Your task to perform on an android device: Go to notification settings Image 0: 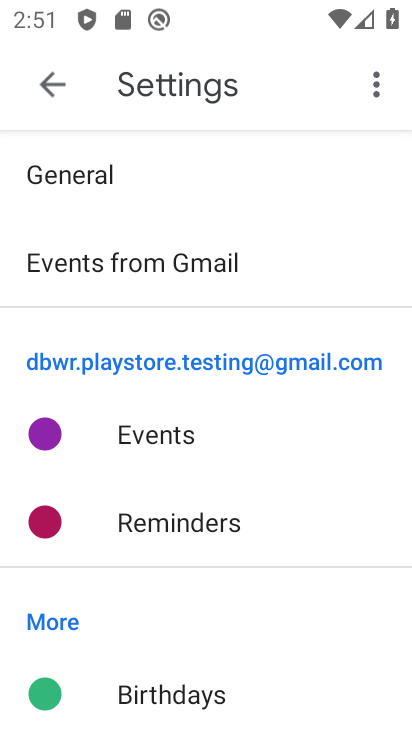
Step 0: press home button
Your task to perform on an android device: Go to notification settings Image 1: 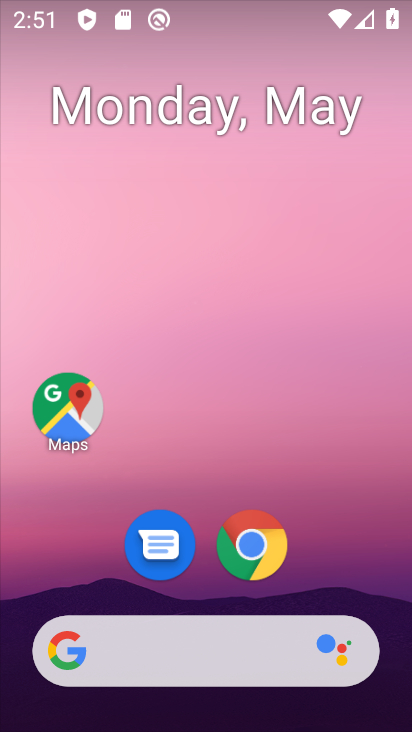
Step 1: drag from (133, 730) to (159, 61)
Your task to perform on an android device: Go to notification settings Image 2: 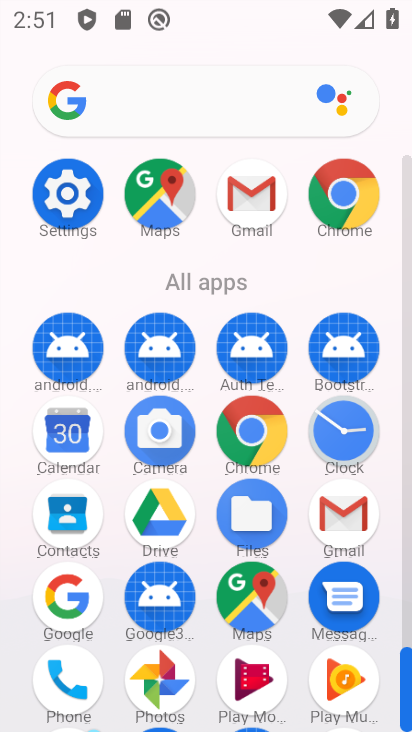
Step 2: click (61, 196)
Your task to perform on an android device: Go to notification settings Image 3: 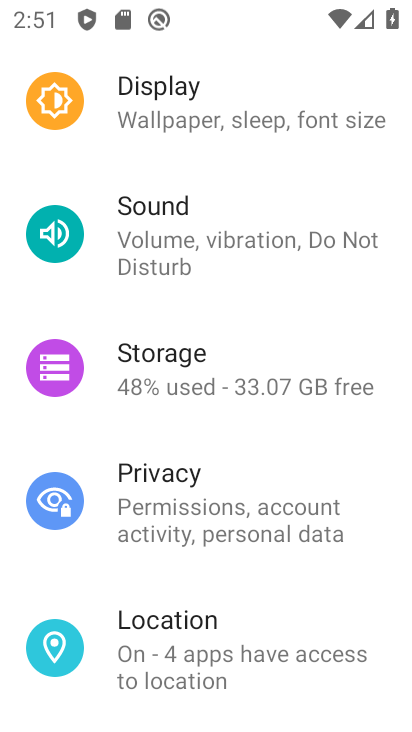
Step 3: drag from (291, 675) to (226, 722)
Your task to perform on an android device: Go to notification settings Image 4: 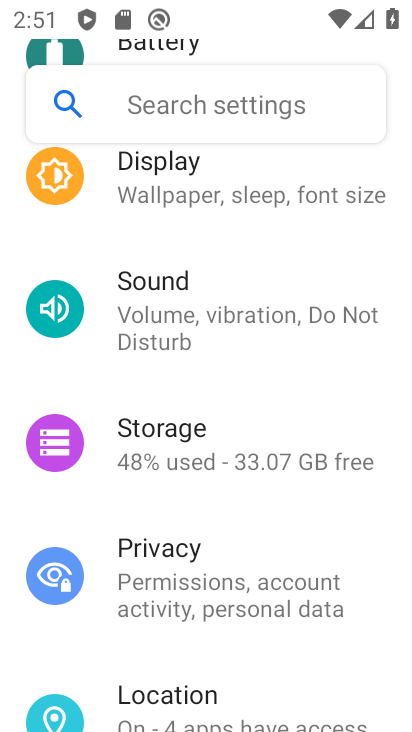
Step 4: drag from (274, 286) to (216, 730)
Your task to perform on an android device: Go to notification settings Image 5: 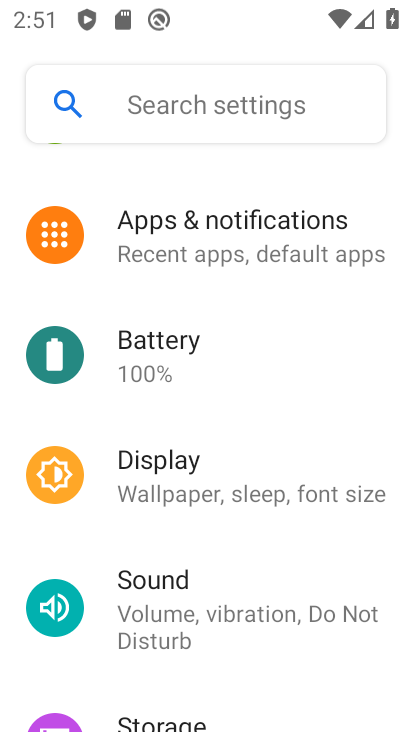
Step 5: click (258, 228)
Your task to perform on an android device: Go to notification settings Image 6: 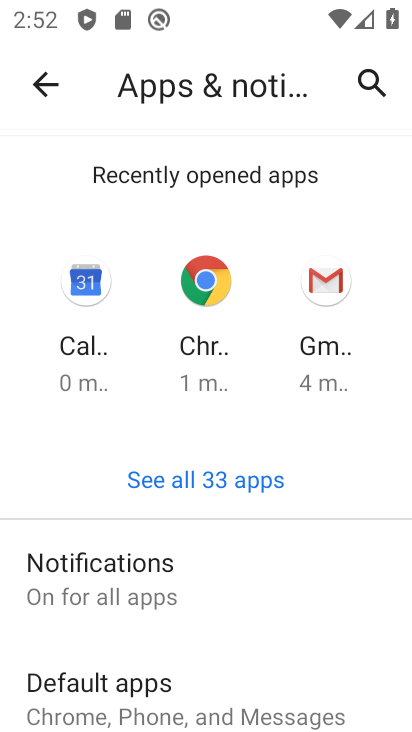
Step 6: task complete